Your task to perform on an android device: open app "Adobe Express: Graphic Design" (install if not already installed) Image 0: 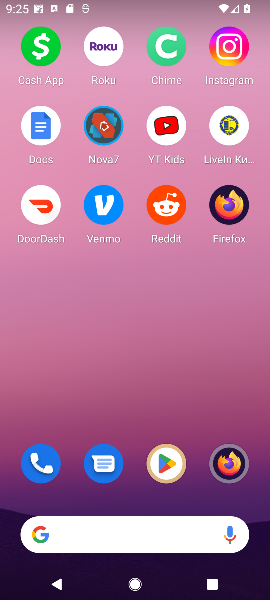
Step 0: click (160, 463)
Your task to perform on an android device: open app "Adobe Express: Graphic Design" (install if not already installed) Image 1: 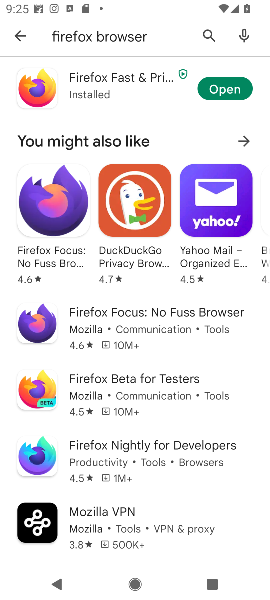
Step 1: click (20, 35)
Your task to perform on an android device: open app "Adobe Express: Graphic Design" (install if not already installed) Image 2: 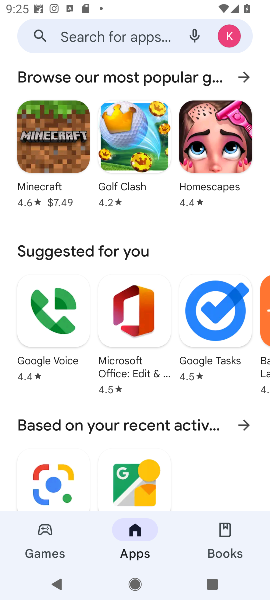
Step 2: click (124, 36)
Your task to perform on an android device: open app "Adobe Express: Graphic Design" (install if not already installed) Image 3: 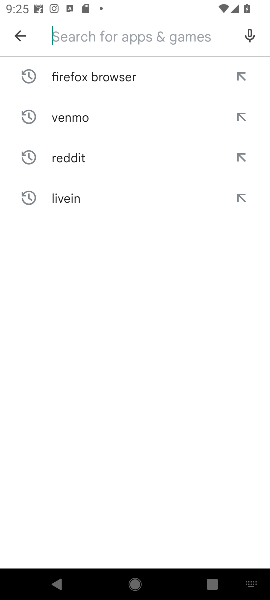
Step 3: type "Adobe Express: Graphic Design"
Your task to perform on an android device: open app "Adobe Express: Graphic Design" (install if not already installed) Image 4: 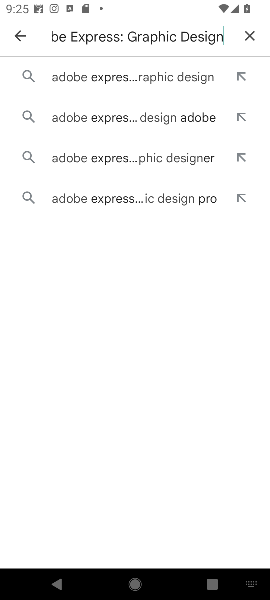
Step 4: click (186, 77)
Your task to perform on an android device: open app "Adobe Express: Graphic Design" (install if not already installed) Image 5: 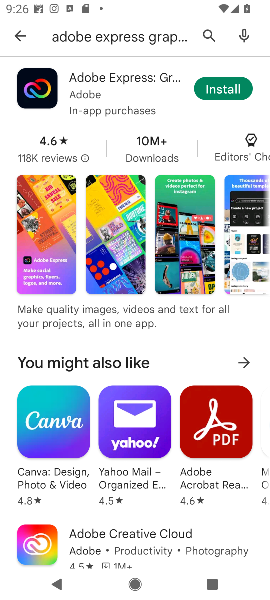
Step 5: click (213, 87)
Your task to perform on an android device: open app "Adobe Express: Graphic Design" (install if not already installed) Image 6: 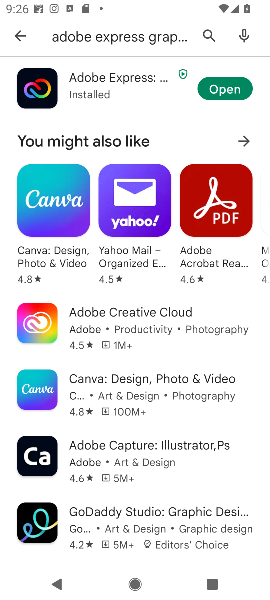
Step 6: click (213, 87)
Your task to perform on an android device: open app "Adobe Express: Graphic Design" (install if not already installed) Image 7: 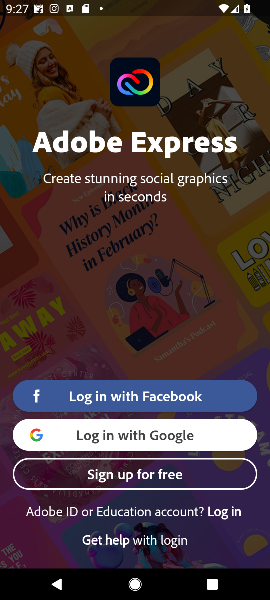
Step 7: task complete